Your task to perform on an android device: change your default location settings in chrome Image 0: 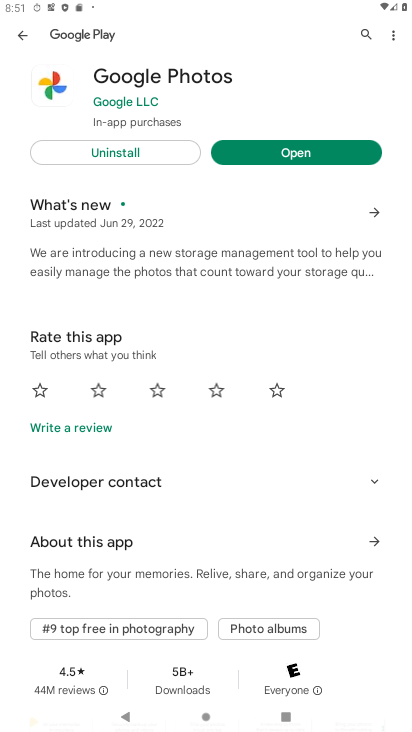
Step 0: press home button
Your task to perform on an android device: change your default location settings in chrome Image 1: 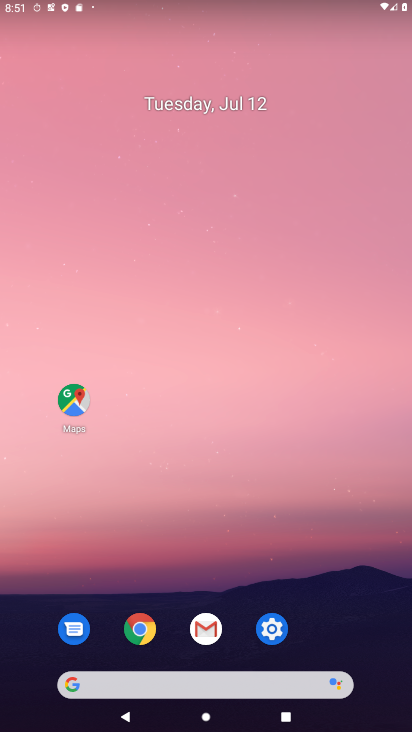
Step 1: click (142, 622)
Your task to perform on an android device: change your default location settings in chrome Image 2: 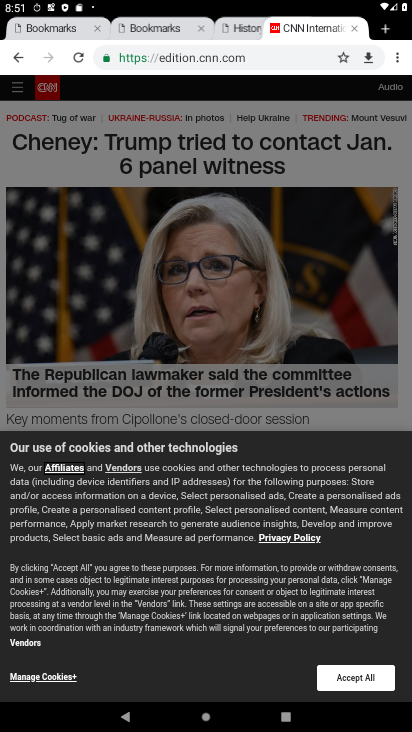
Step 2: click (392, 65)
Your task to perform on an android device: change your default location settings in chrome Image 3: 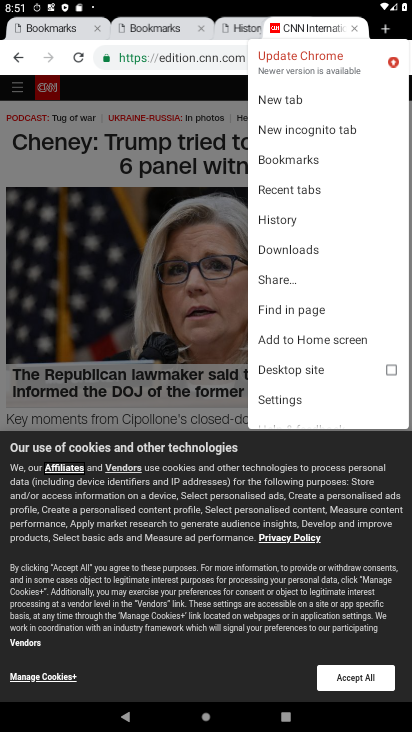
Step 3: click (281, 404)
Your task to perform on an android device: change your default location settings in chrome Image 4: 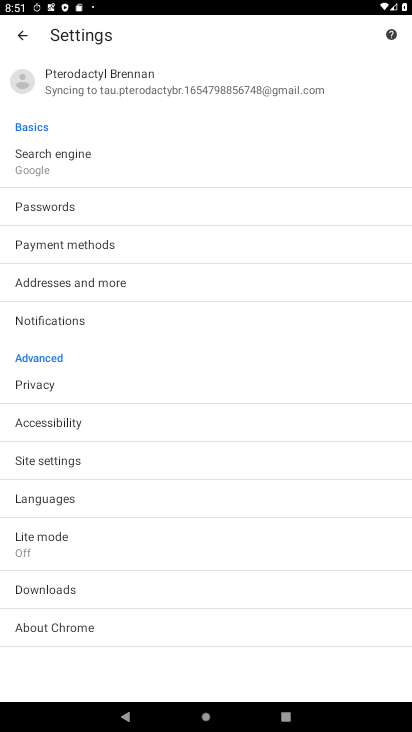
Step 4: click (90, 459)
Your task to perform on an android device: change your default location settings in chrome Image 5: 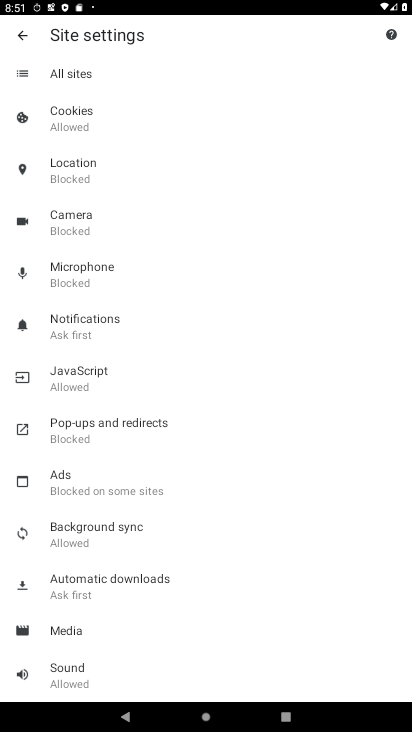
Step 5: click (92, 166)
Your task to perform on an android device: change your default location settings in chrome Image 6: 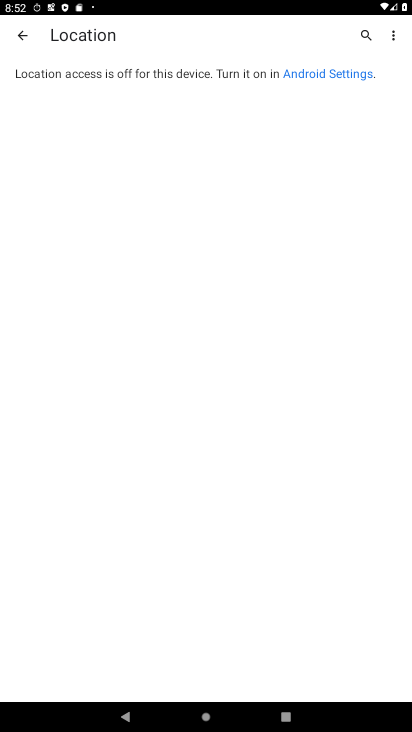
Step 6: task complete